Your task to perform on an android device: change the clock display to show seconds Image 0: 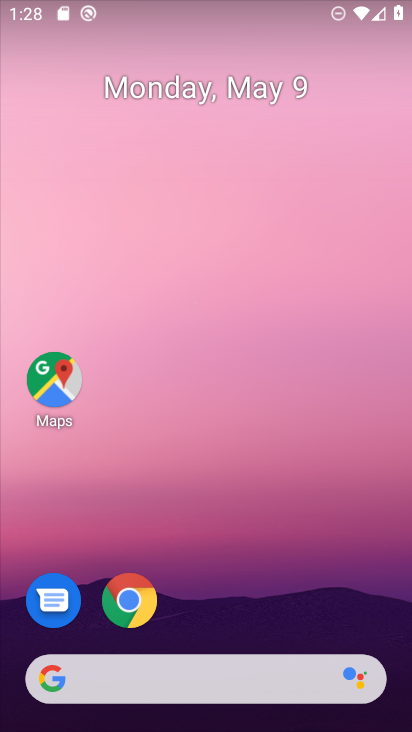
Step 0: drag from (168, 655) to (385, 35)
Your task to perform on an android device: change the clock display to show seconds Image 1: 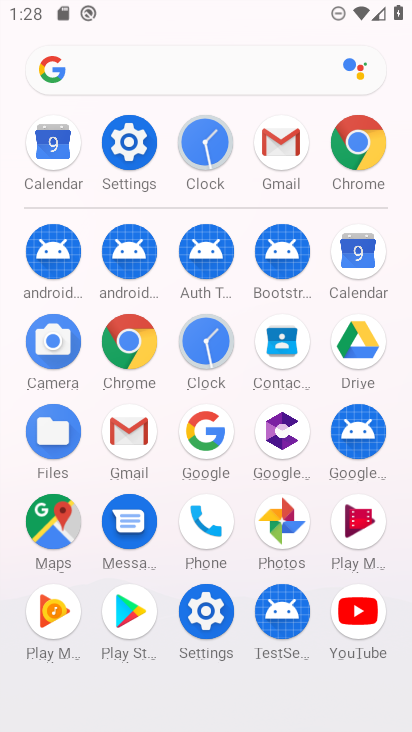
Step 1: click (199, 151)
Your task to perform on an android device: change the clock display to show seconds Image 2: 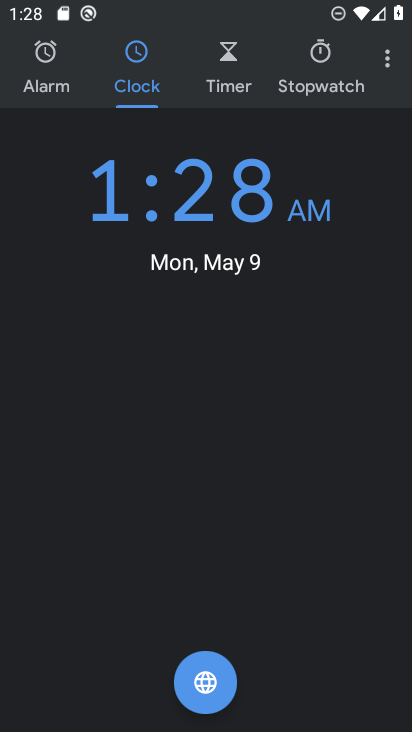
Step 2: click (383, 64)
Your task to perform on an android device: change the clock display to show seconds Image 3: 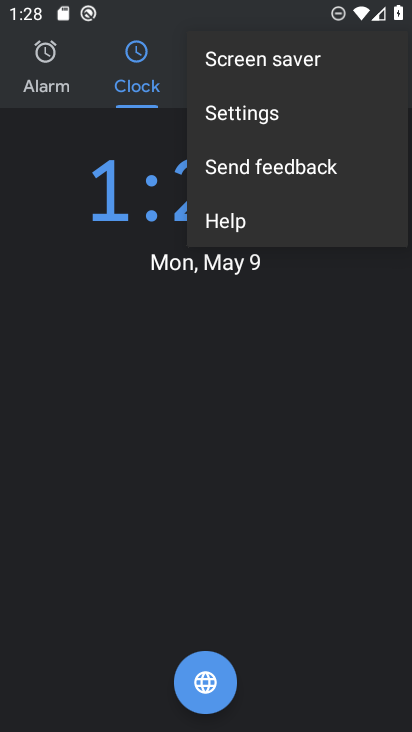
Step 3: click (242, 114)
Your task to perform on an android device: change the clock display to show seconds Image 4: 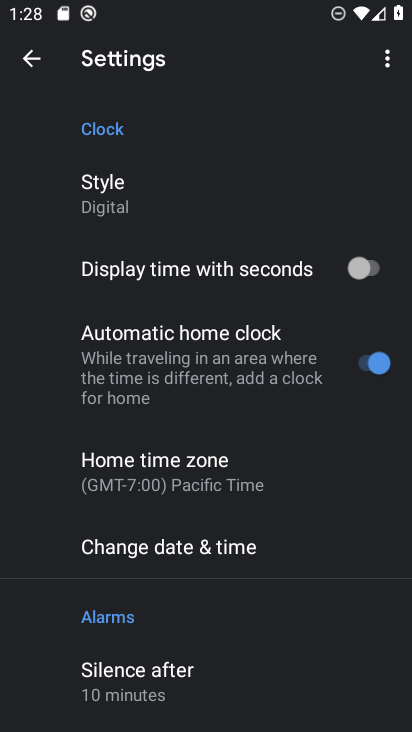
Step 4: click (378, 266)
Your task to perform on an android device: change the clock display to show seconds Image 5: 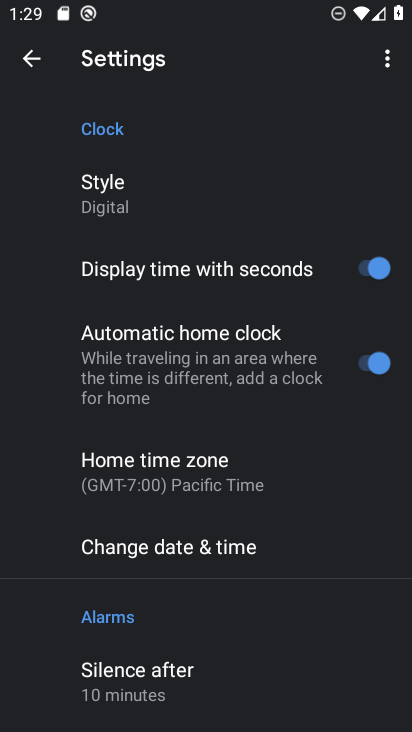
Step 5: task complete